Your task to perform on an android device: Open Amazon Image 0: 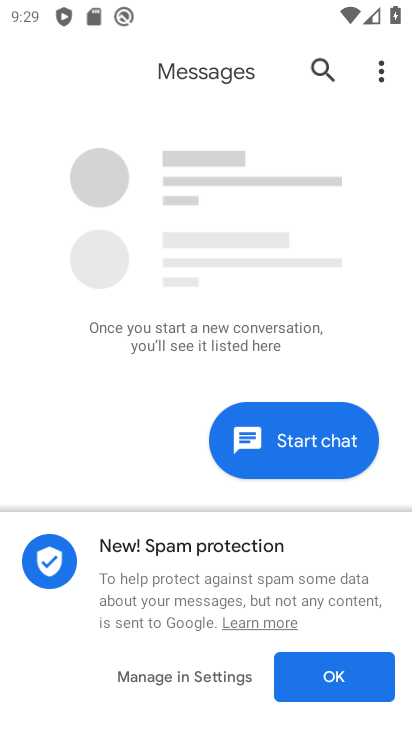
Step 0: press back button
Your task to perform on an android device: Open Amazon Image 1: 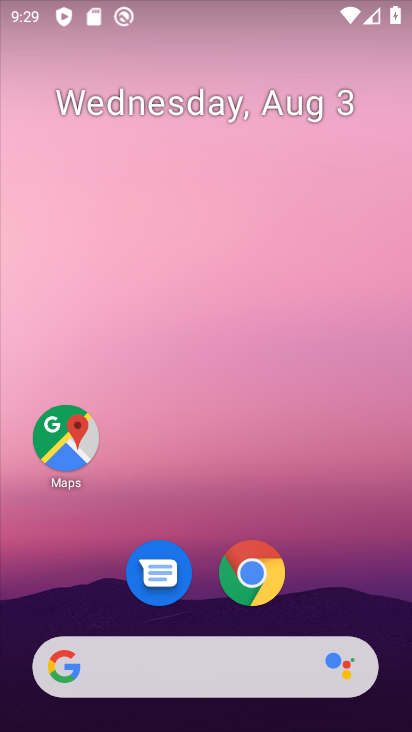
Step 1: click (248, 600)
Your task to perform on an android device: Open Amazon Image 2: 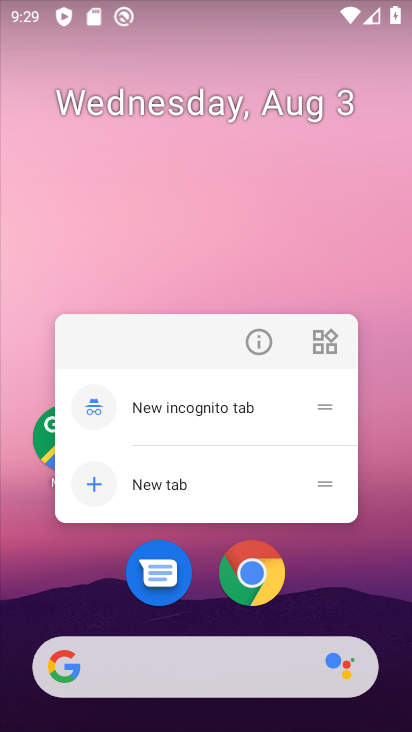
Step 2: click (248, 600)
Your task to perform on an android device: Open Amazon Image 3: 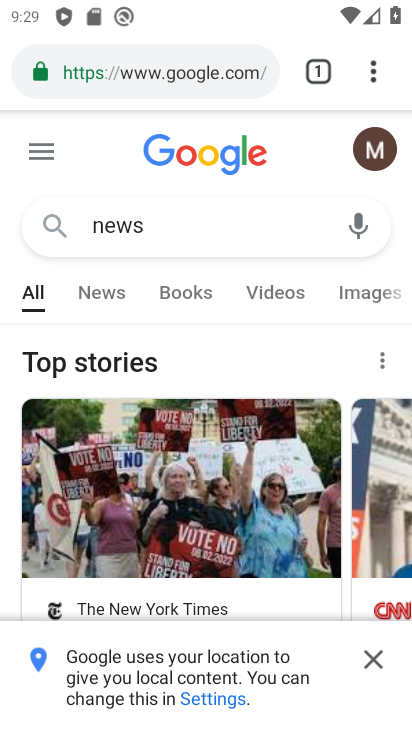
Step 3: click (197, 72)
Your task to perform on an android device: Open Amazon Image 4: 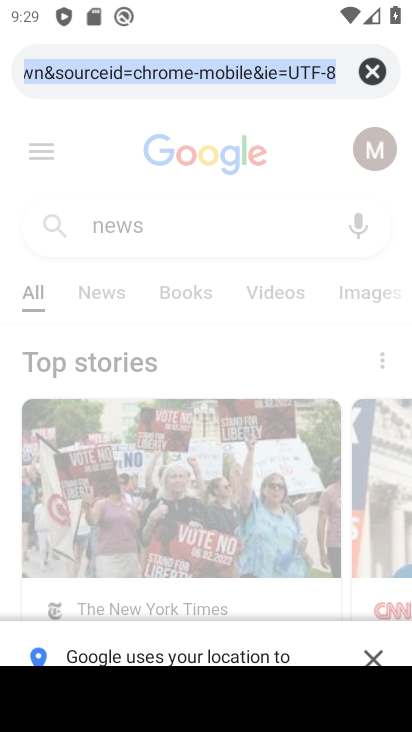
Step 4: type "amazon"
Your task to perform on an android device: Open Amazon Image 5: 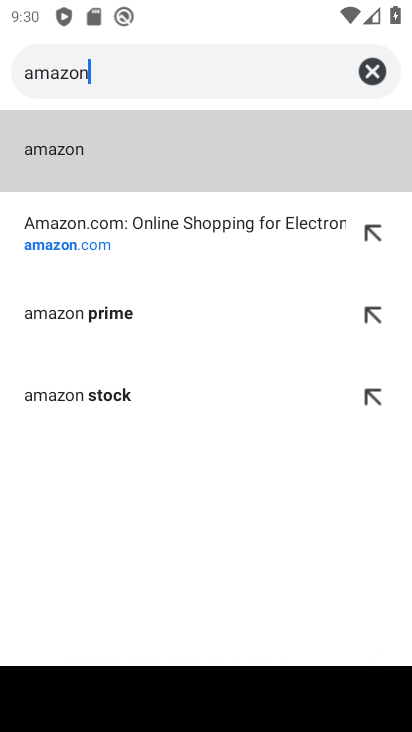
Step 5: click (102, 168)
Your task to perform on an android device: Open Amazon Image 6: 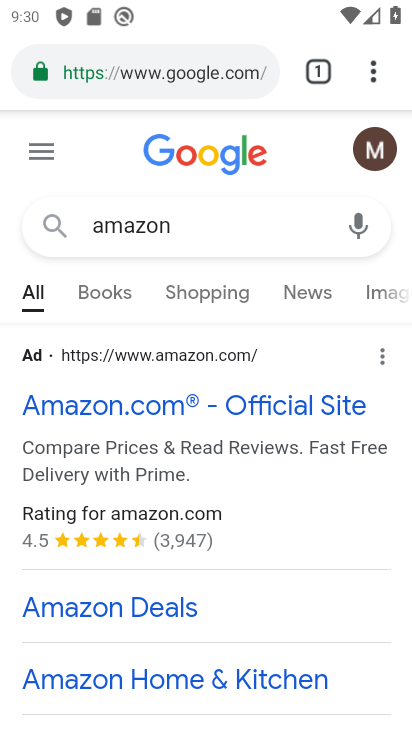
Step 6: drag from (193, 660) to (235, 109)
Your task to perform on an android device: Open Amazon Image 7: 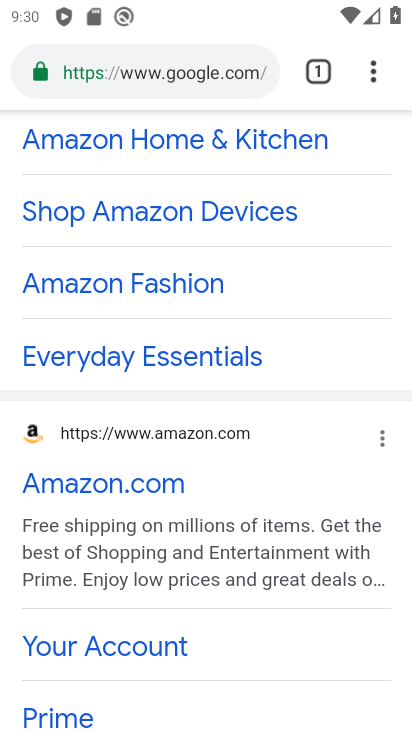
Step 7: drag from (283, 569) to (301, 277)
Your task to perform on an android device: Open Amazon Image 8: 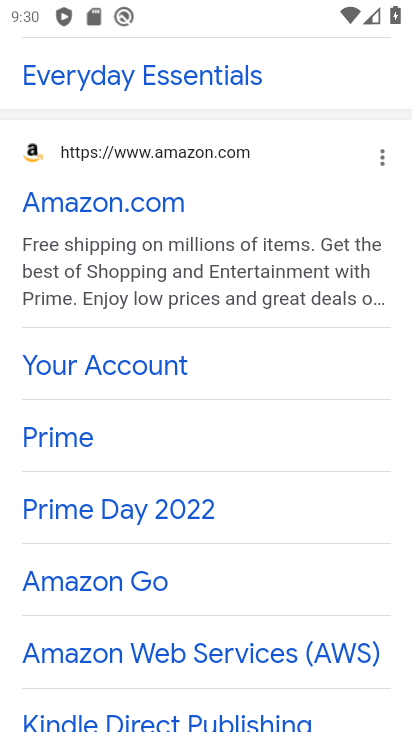
Step 8: click (76, 201)
Your task to perform on an android device: Open Amazon Image 9: 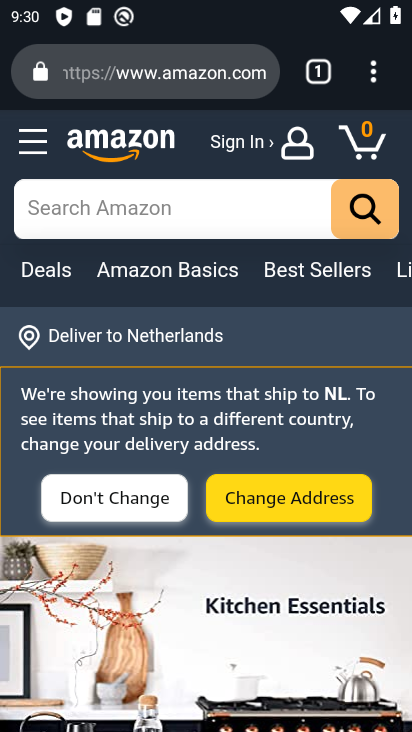
Step 9: task complete